Your task to perform on an android device: Search for handmade jewelry on Etsy. Image 0: 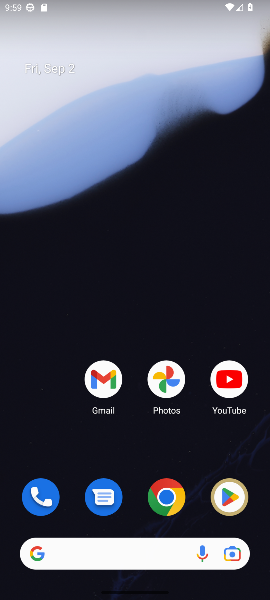
Step 0: press home button
Your task to perform on an android device: Search for handmade jewelry on Etsy. Image 1: 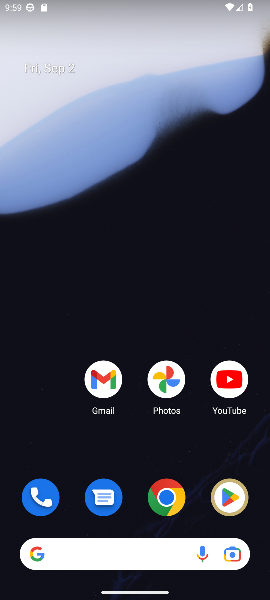
Step 1: drag from (107, 473) to (76, 158)
Your task to perform on an android device: Search for handmade jewelry on Etsy. Image 2: 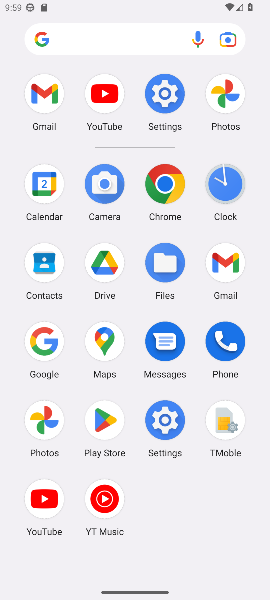
Step 2: click (51, 335)
Your task to perform on an android device: Search for handmade jewelry on Etsy. Image 3: 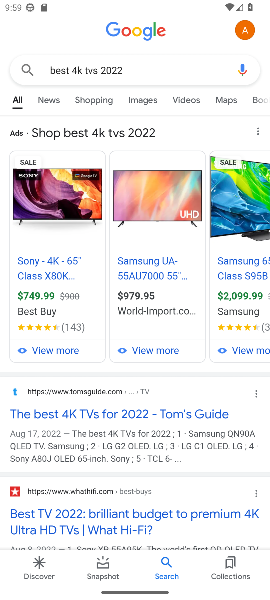
Step 3: click (139, 62)
Your task to perform on an android device: Search for handmade jewelry on Etsy. Image 4: 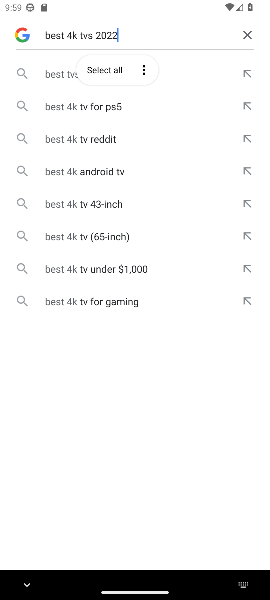
Step 4: click (189, 58)
Your task to perform on an android device: Search for handmade jewelry on Etsy. Image 5: 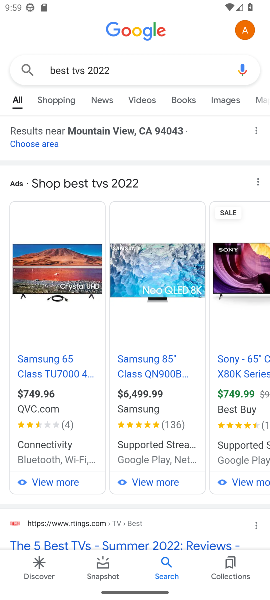
Step 5: click (182, 34)
Your task to perform on an android device: Search for handmade jewelry on Etsy. Image 6: 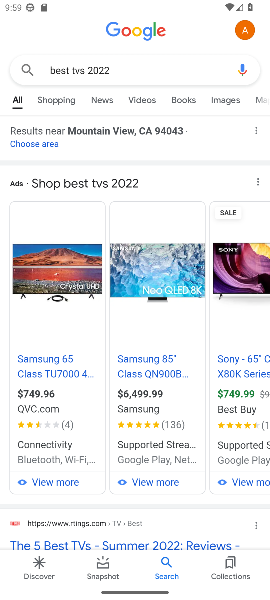
Step 6: click (144, 70)
Your task to perform on an android device: Search for handmade jewelry on Etsy. Image 7: 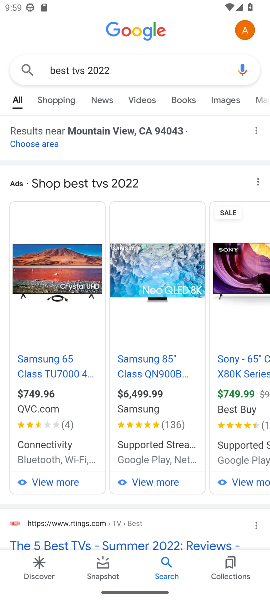
Step 7: click (144, 70)
Your task to perform on an android device: Search for handmade jewelry on Etsy. Image 8: 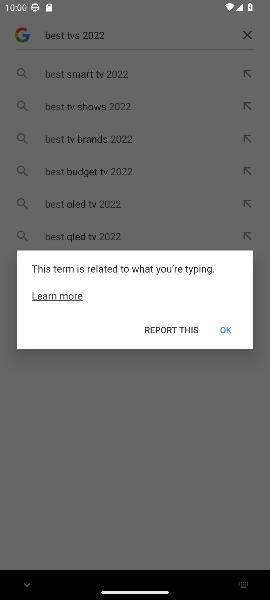
Step 8: press home button
Your task to perform on an android device: Search for handmade jewelry on Etsy. Image 9: 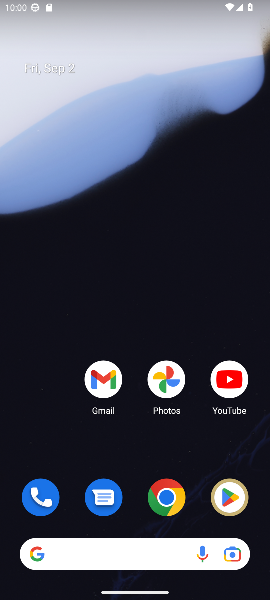
Step 9: drag from (135, 522) to (93, 109)
Your task to perform on an android device: Search for handmade jewelry on Etsy. Image 10: 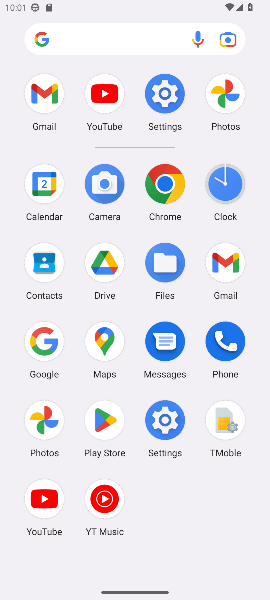
Step 10: click (40, 341)
Your task to perform on an android device: Search for handmade jewelry on Etsy. Image 11: 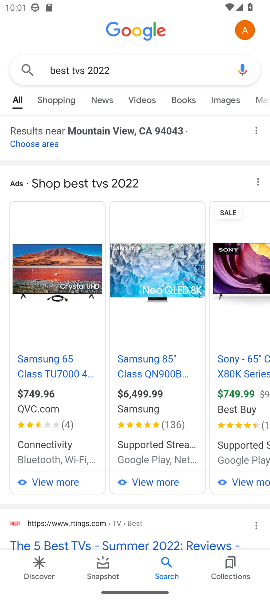
Step 11: click (189, 66)
Your task to perform on an android device: Search for handmade jewelry on Etsy. Image 12: 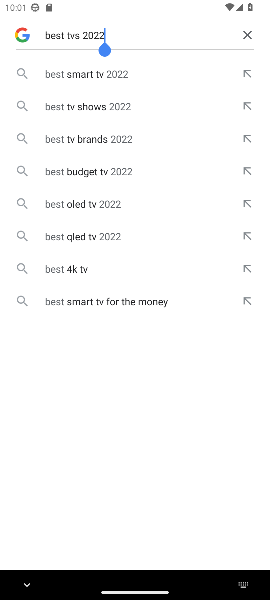
Step 12: drag from (190, 64) to (251, 34)
Your task to perform on an android device: Search for handmade jewelry on Etsy. Image 13: 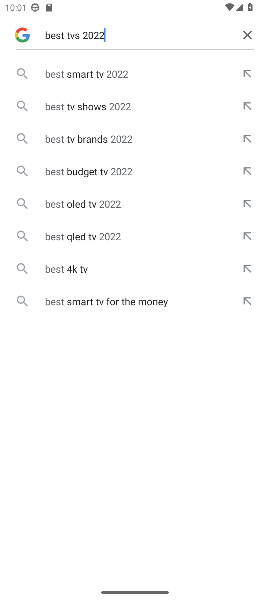
Step 13: click (247, 34)
Your task to perform on an android device: Search for handmade jewelry on Etsy. Image 14: 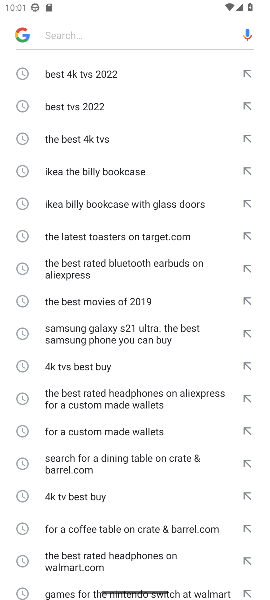
Step 14: click (182, 41)
Your task to perform on an android device: Search for handmade jewelry on Etsy. Image 15: 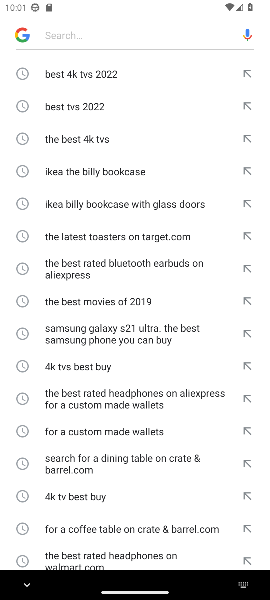
Step 15: type " handmade jewelry on Etsy."
Your task to perform on an android device: Search for handmade jewelry on Etsy. Image 16: 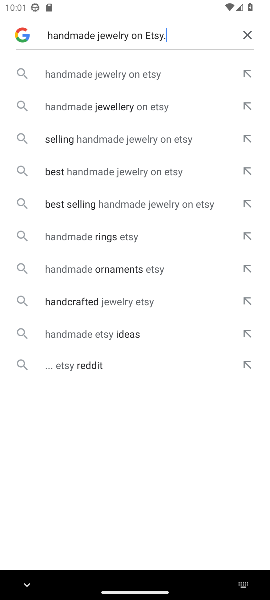
Step 16: click (128, 69)
Your task to perform on an android device: Search for handmade jewelry on Etsy. Image 17: 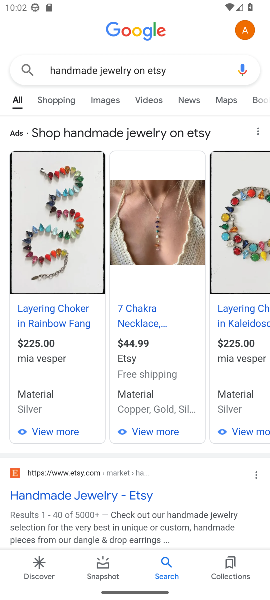
Step 17: click (112, 498)
Your task to perform on an android device: Search for handmade jewelry on Etsy. Image 18: 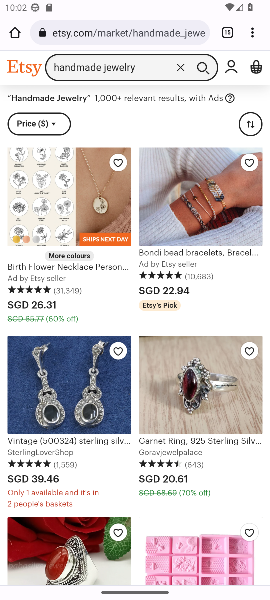
Step 18: task complete